Your task to perform on an android device: Is it going to rain this weekend? Image 0: 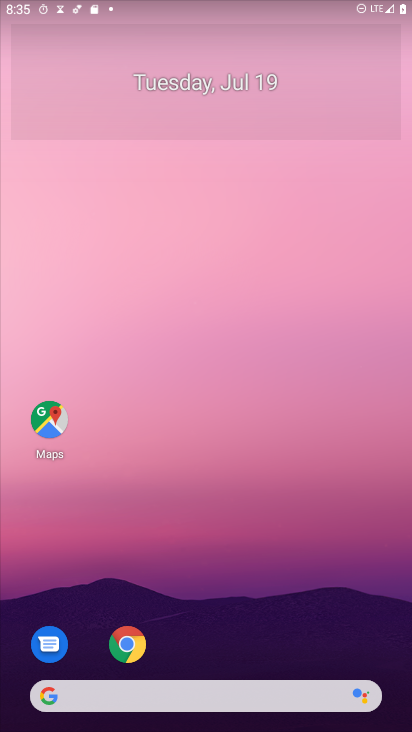
Step 0: click (96, 692)
Your task to perform on an android device: Is it going to rain this weekend? Image 1: 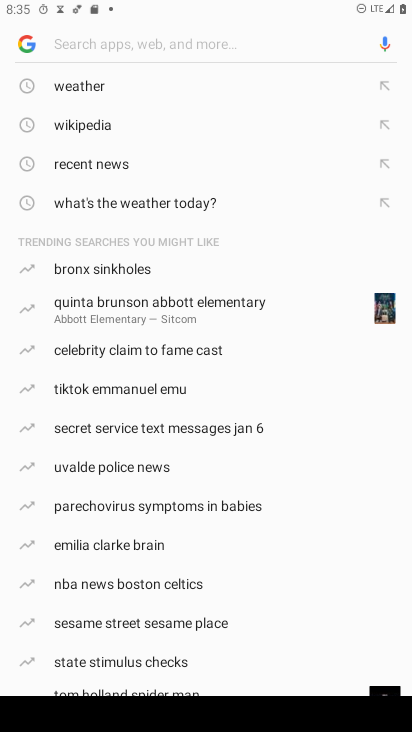
Step 1: type "Is it going to rain this weekend?"
Your task to perform on an android device: Is it going to rain this weekend? Image 2: 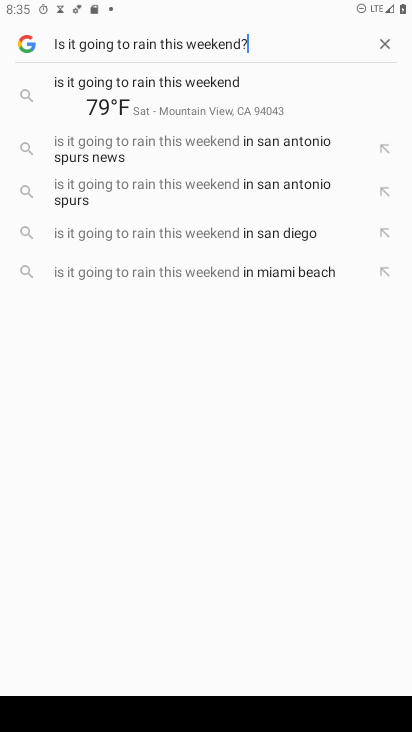
Step 2: type ""
Your task to perform on an android device: Is it going to rain this weekend? Image 3: 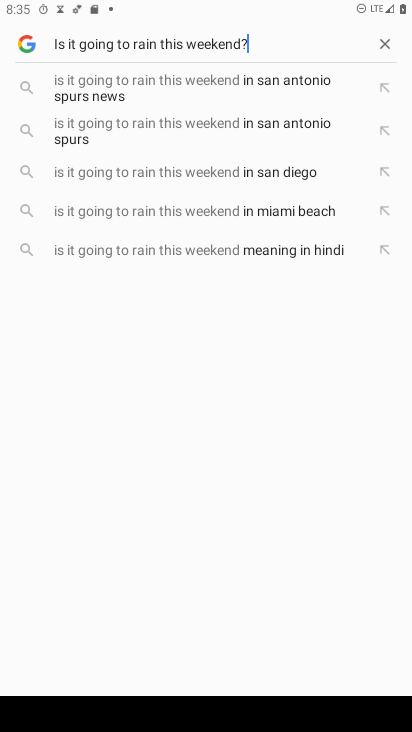
Step 3: type ""
Your task to perform on an android device: Is it going to rain this weekend? Image 4: 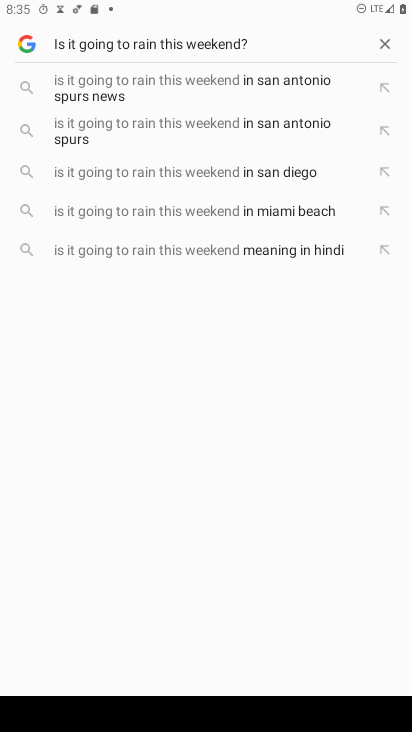
Step 4: type ""
Your task to perform on an android device: Is it going to rain this weekend? Image 5: 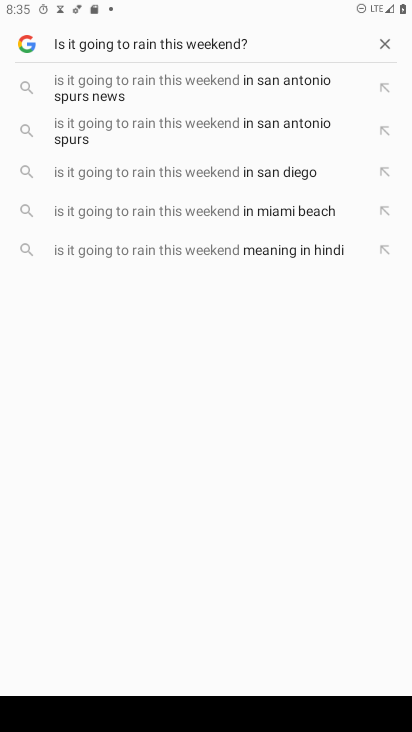
Step 5: task complete